Your task to perform on an android device: See recent photos Image 0: 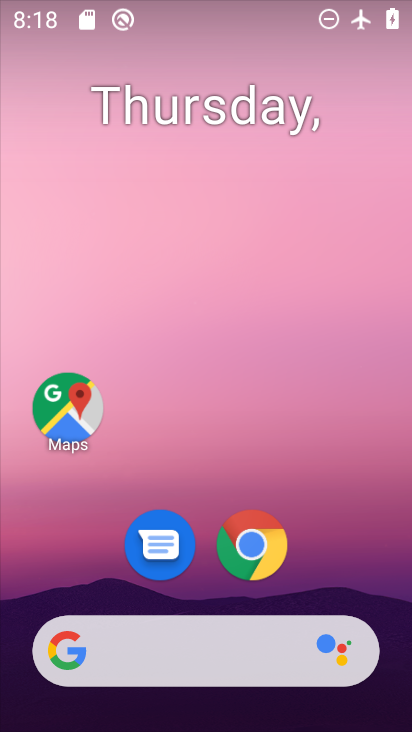
Step 0: drag from (336, 579) to (316, 0)
Your task to perform on an android device: See recent photos Image 1: 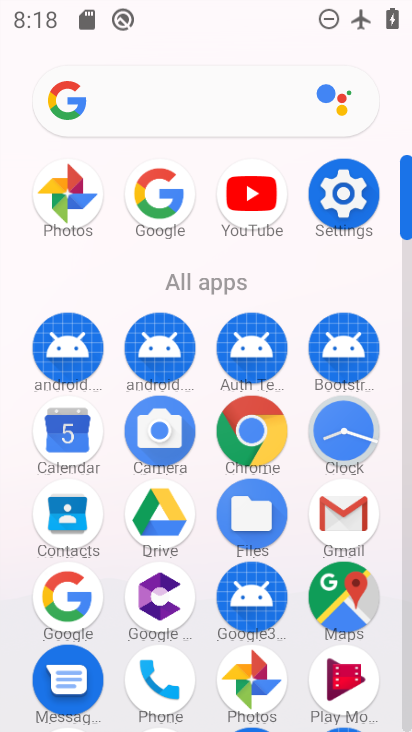
Step 1: click (71, 195)
Your task to perform on an android device: See recent photos Image 2: 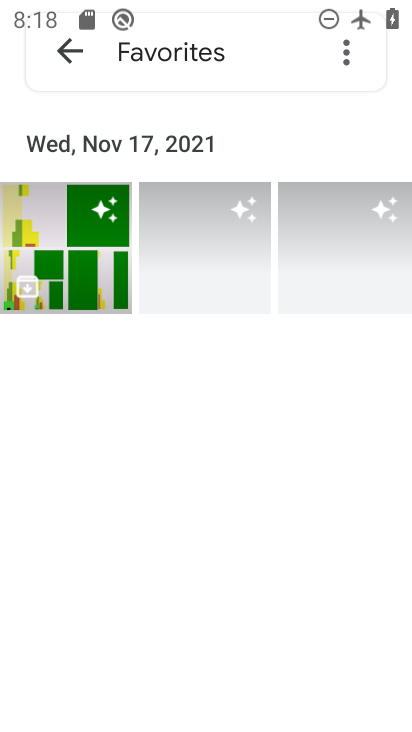
Step 2: click (103, 245)
Your task to perform on an android device: See recent photos Image 3: 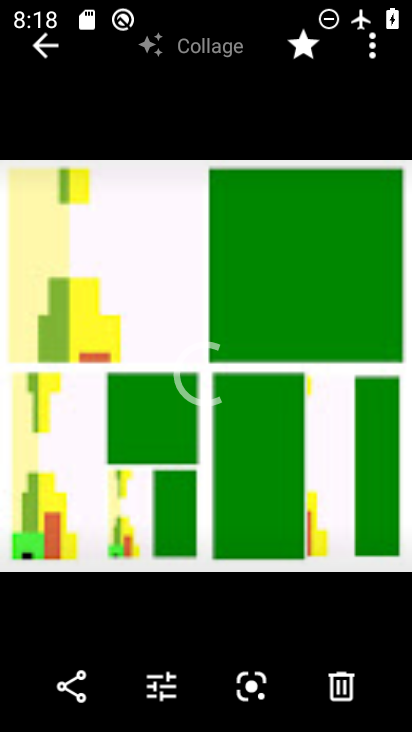
Step 3: task complete